Your task to perform on an android device: turn on the 12-hour format for clock Image 0: 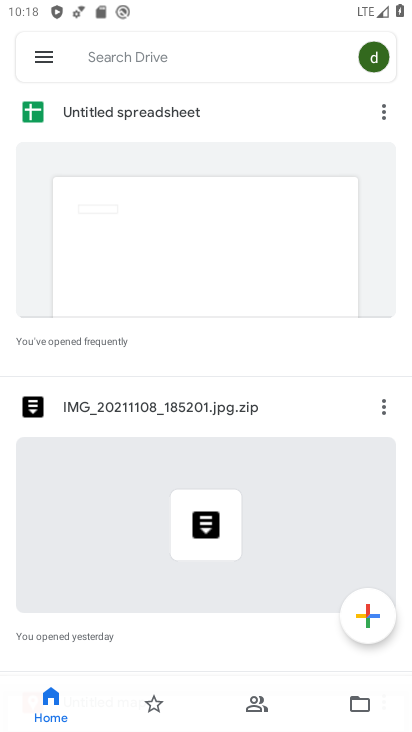
Step 0: press home button
Your task to perform on an android device: turn on the 12-hour format for clock Image 1: 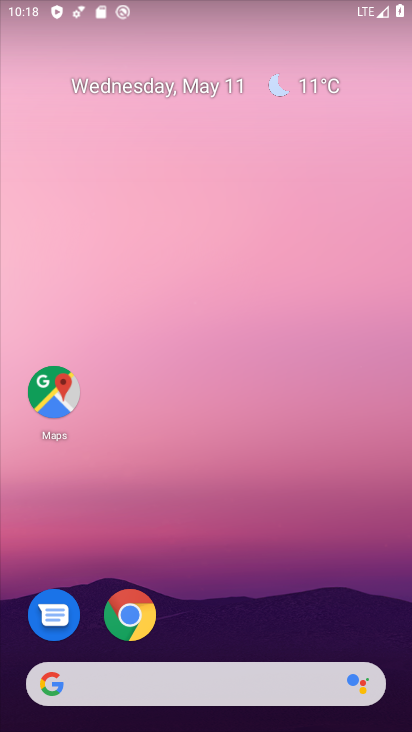
Step 1: drag from (203, 564) to (193, 152)
Your task to perform on an android device: turn on the 12-hour format for clock Image 2: 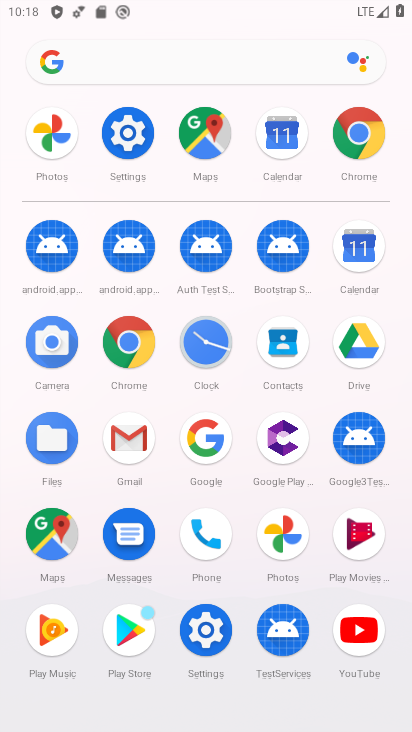
Step 2: click (196, 331)
Your task to perform on an android device: turn on the 12-hour format for clock Image 3: 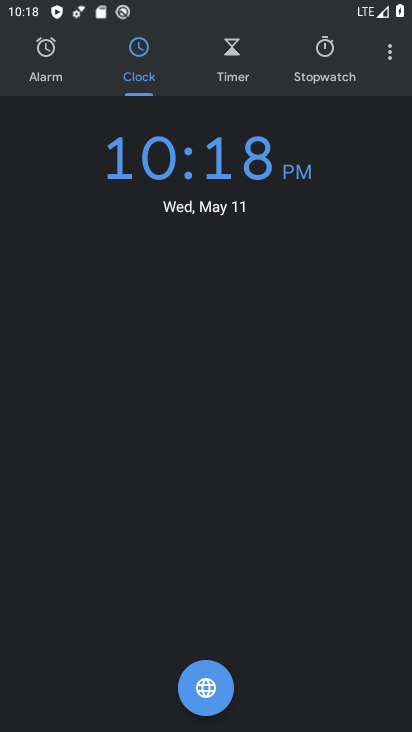
Step 3: click (392, 56)
Your task to perform on an android device: turn on the 12-hour format for clock Image 4: 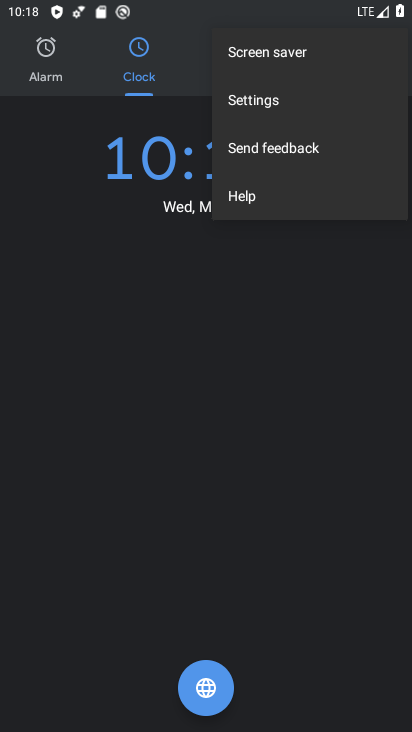
Step 4: click (273, 111)
Your task to perform on an android device: turn on the 12-hour format for clock Image 5: 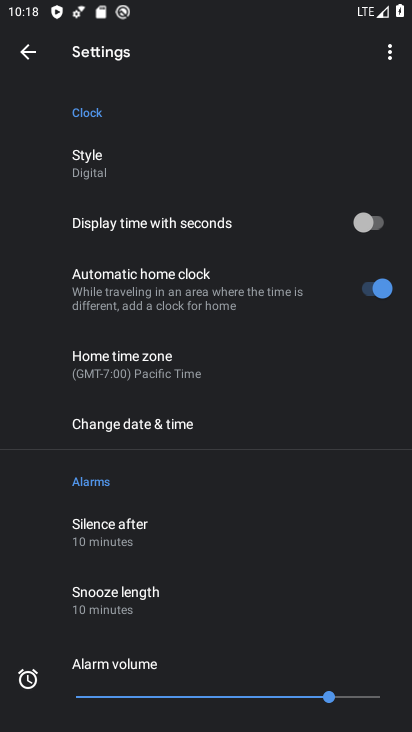
Step 5: click (116, 422)
Your task to perform on an android device: turn on the 12-hour format for clock Image 6: 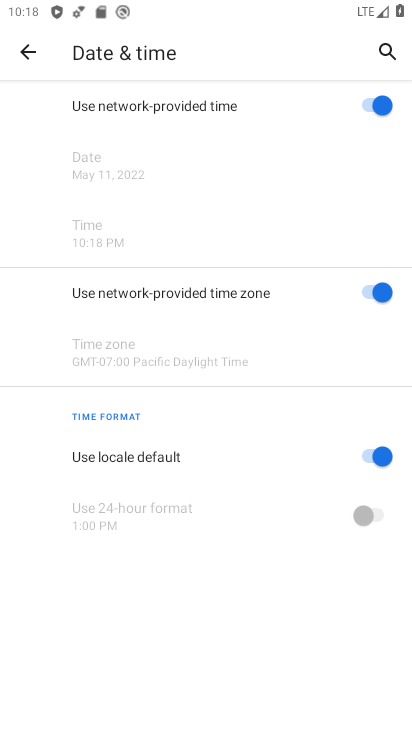
Step 6: task complete